Your task to perform on an android device: Toggle the flashlight Image 0: 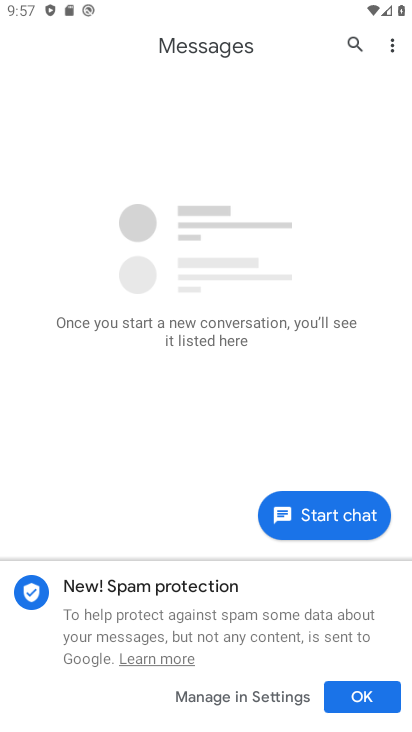
Step 0: press home button
Your task to perform on an android device: Toggle the flashlight Image 1: 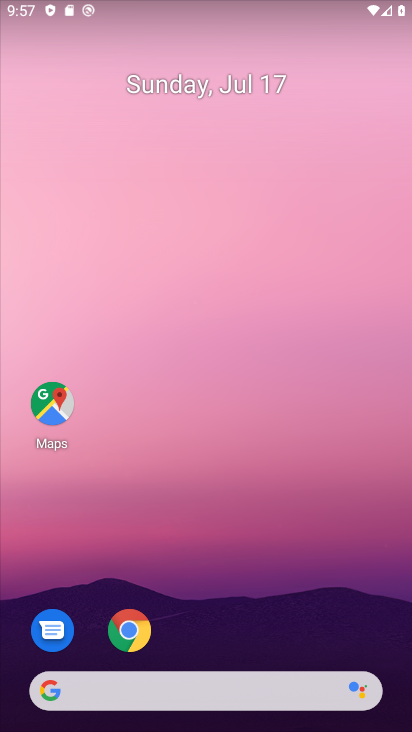
Step 1: drag from (192, 6) to (182, 370)
Your task to perform on an android device: Toggle the flashlight Image 2: 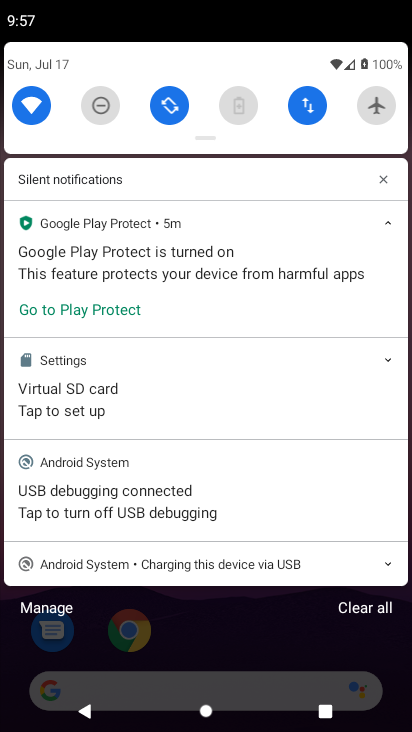
Step 2: drag from (214, 59) to (208, 341)
Your task to perform on an android device: Toggle the flashlight Image 3: 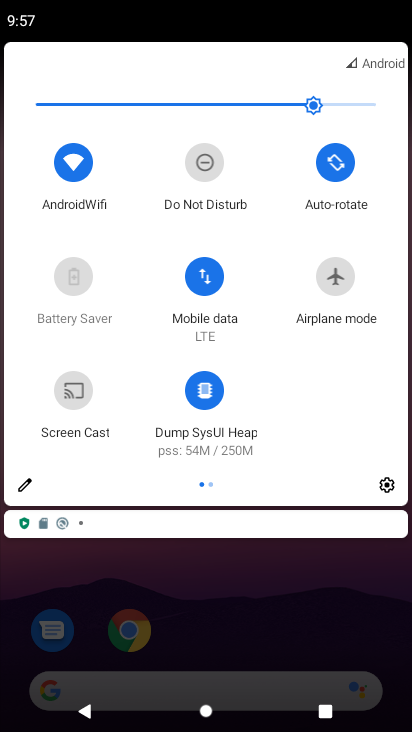
Step 3: click (20, 492)
Your task to perform on an android device: Toggle the flashlight Image 4: 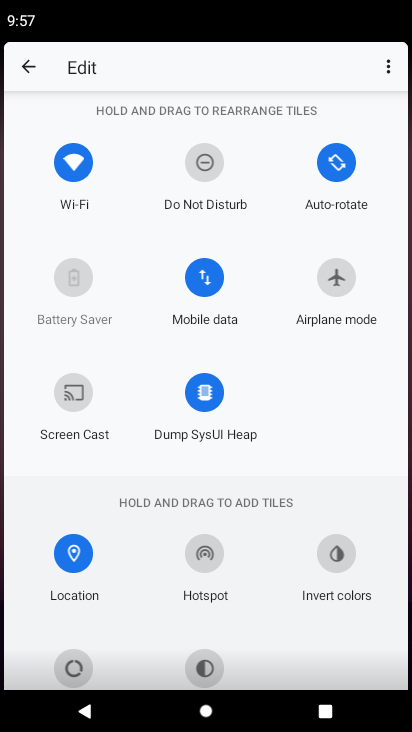
Step 4: task complete